Your task to perform on an android device: open chrome privacy settings Image 0: 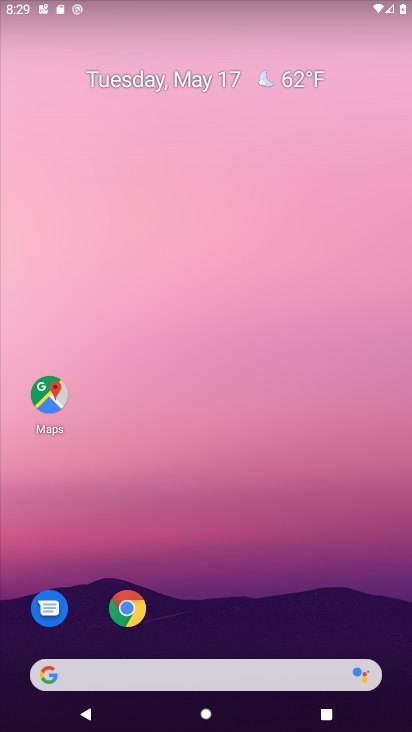
Step 0: drag from (338, 623) to (337, 184)
Your task to perform on an android device: open chrome privacy settings Image 1: 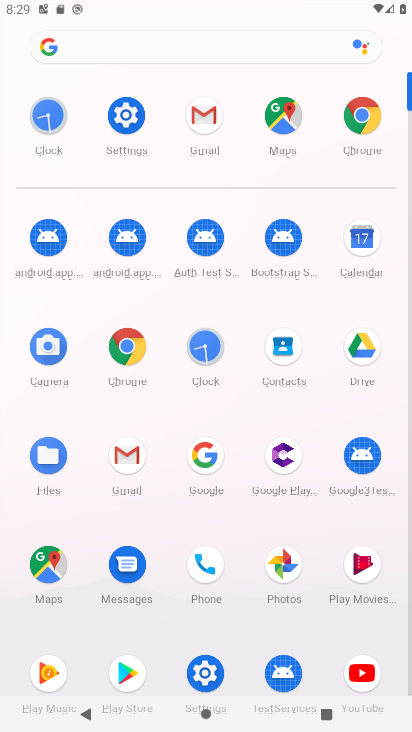
Step 1: click (369, 136)
Your task to perform on an android device: open chrome privacy settings Image 2: 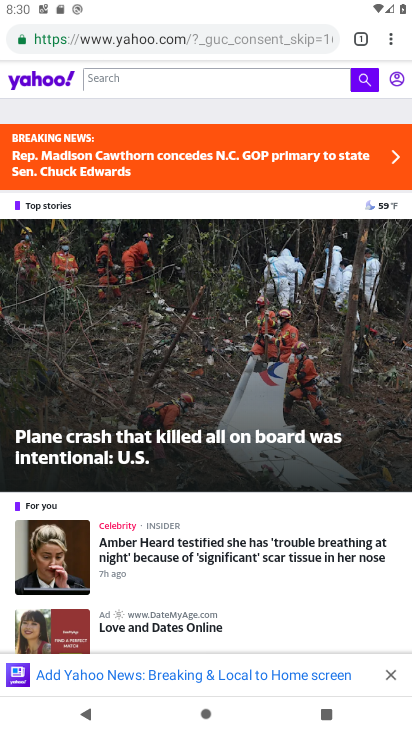
Step 2: click (389, 36)
Your task to perform on an android device: open chrome privacy settings Image 3: 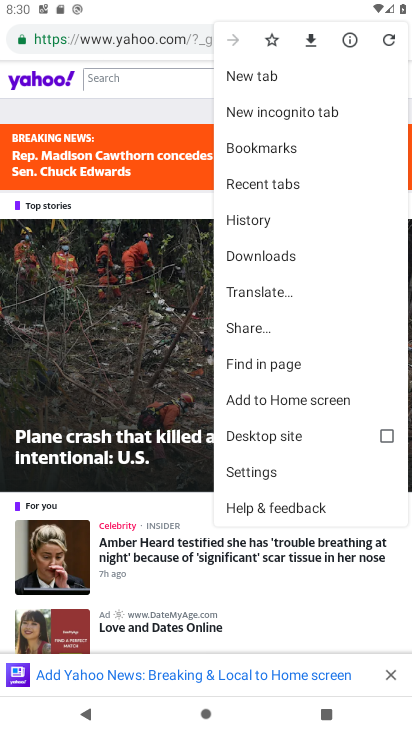
Step 3: click (301, 473)
Your task to perform on an android device: open chrome privacy settings Image 4: 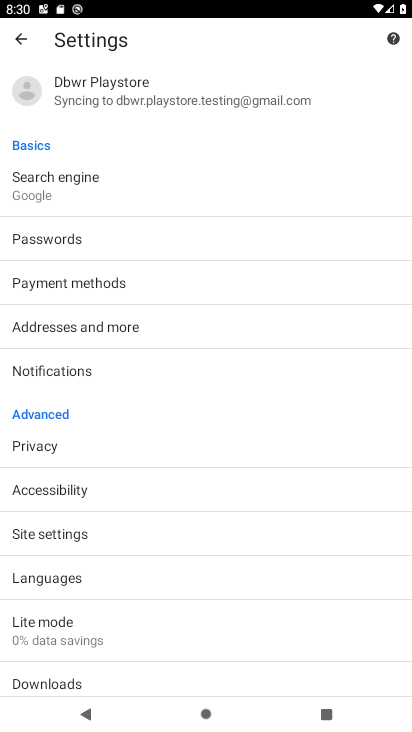
Step 4: drag from (321, 435) to (323, 380)
Your task to perform on an android device: open chrome privacy settings Image 5: 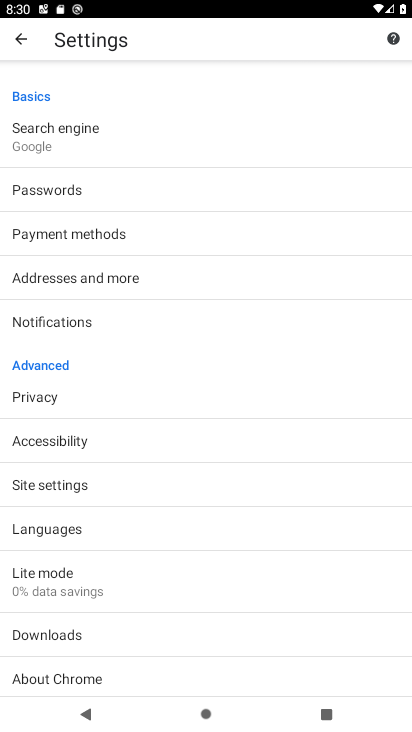
Step 5: drag from (290, 452) to (302, 372)
Your task to perform on an android device: open chrome privacy settings Image 6: 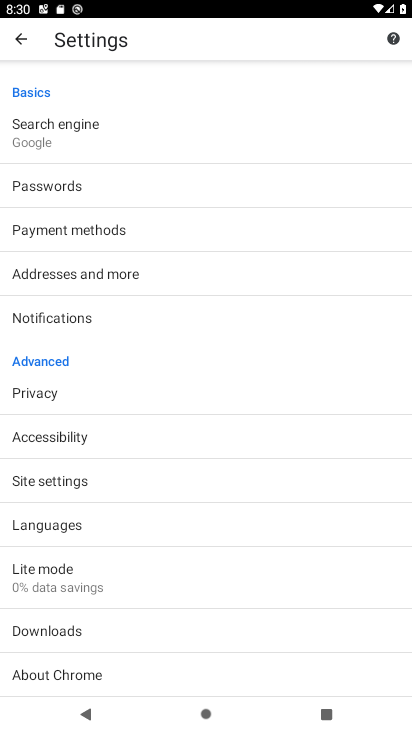
Step 6: click (179, 397)
Your task to perform on an android device: open chrome privacy settings Image 7: 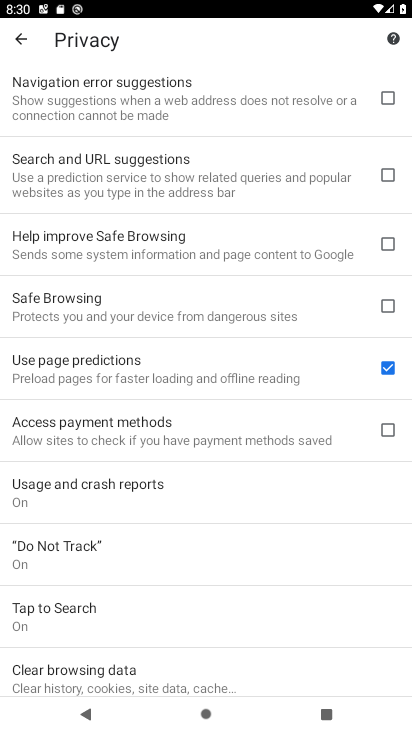
Step 7: task complete